Your task to perform on an android device: Open the Play Movies app and select the watchlist tab. Image 0: 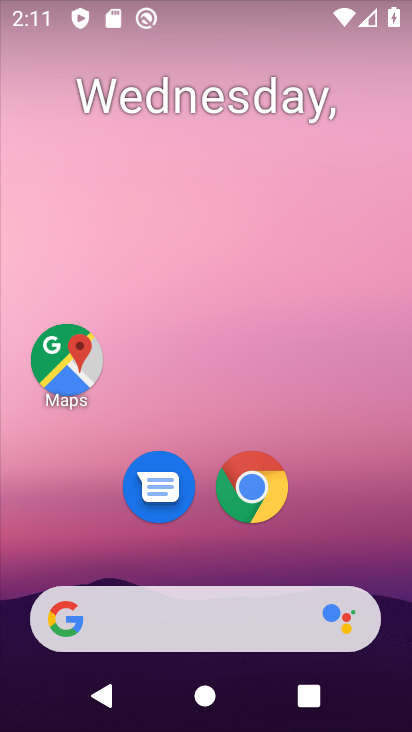
Step 0: drag from (210, 458) to (246, 111)
Your task to perform on an android device: Open the Play Movies app and select the watchlist tab. Image 1: 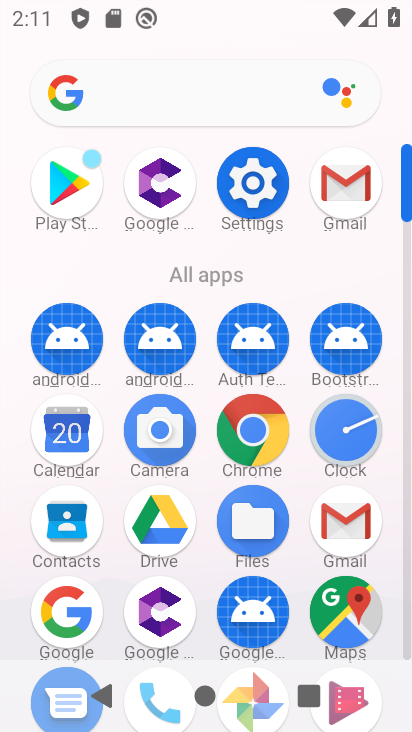
Step 1: drag from (204, 528) to (221, 249)
Your task to perform on an android device: Open the Play Movies app and select the watchlist tab. Image 2: 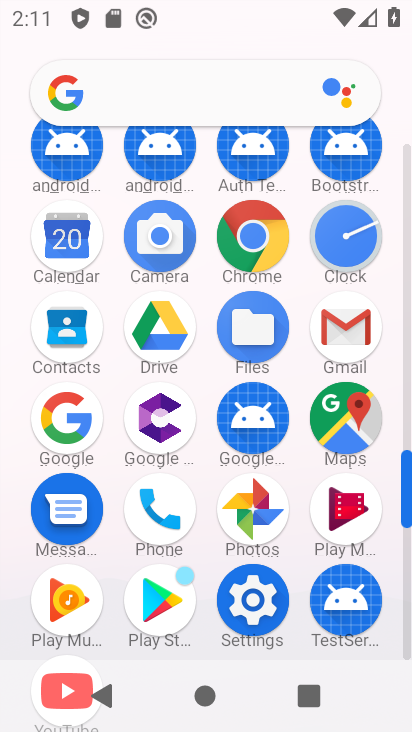
Step 2: click (324, 519)
Your task to perform on an android device: Open the Play Movies app and select the watchlist tab. Image 3: 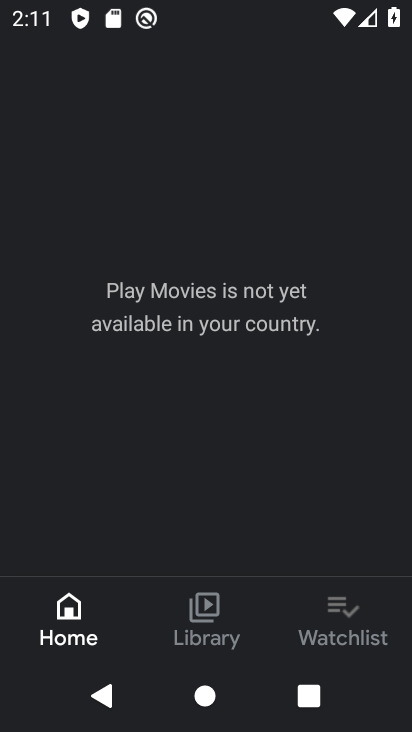
Step 3: click (346, 622)
Your task to perform on an android device: Open the Play Movies app and select the watchlist tab. Image 4: 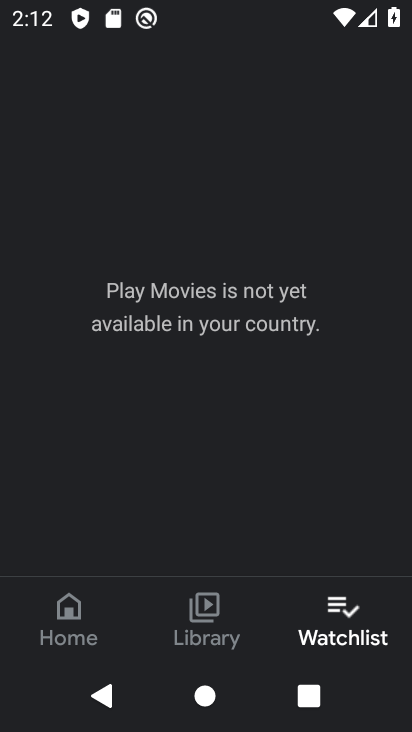
Step 4: task complete